Your task to perform on an android device: turn off translation in the chrome app Image 0: 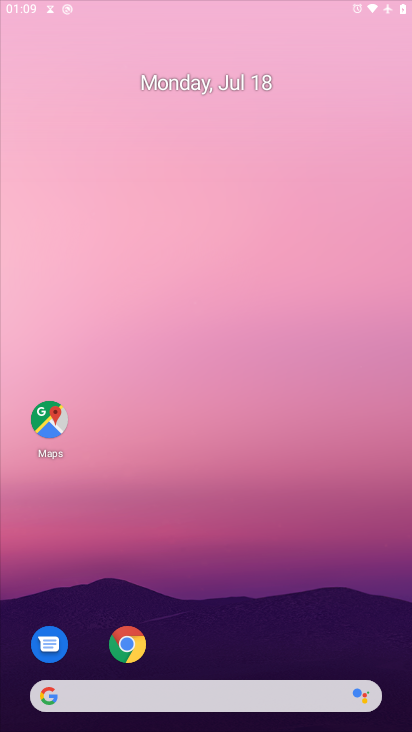
Step 0: press home button
Your task to perform on an android device: turn off translation in the chrome app Image 1: 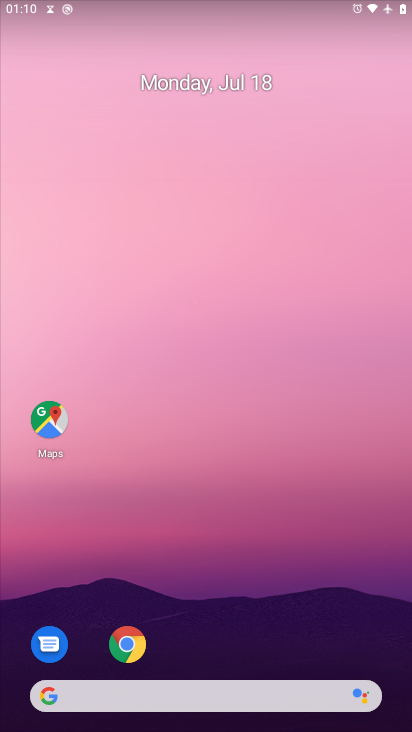
Step 1: drag from (241, 586) to (209, 1)
Your task to perform on an android device: turn off translation in the chrome app Image 2: 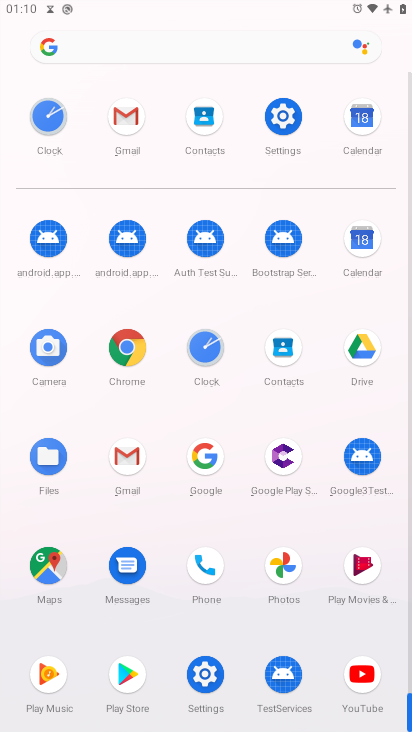
Step 2: click (122, 355)
Your task to perform on an android device: turn off translation in the chrome app Image 3: 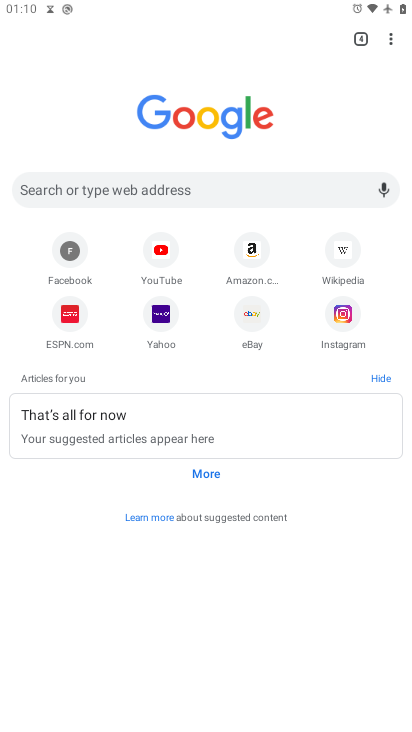
Step 3: drag from (399, 43) to (273, 330)
Your task to perform on an android device: turn off translation in the chrome app Image 4: 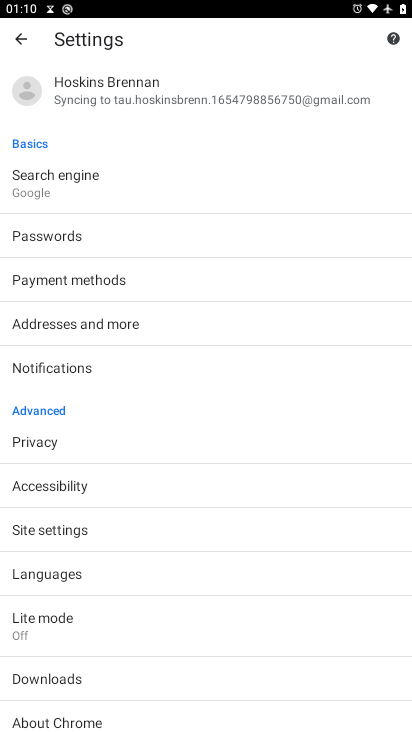
Step 4: click (43, 578)
Your task to perform on an android device: turn off translation in the chrome app Image 5: 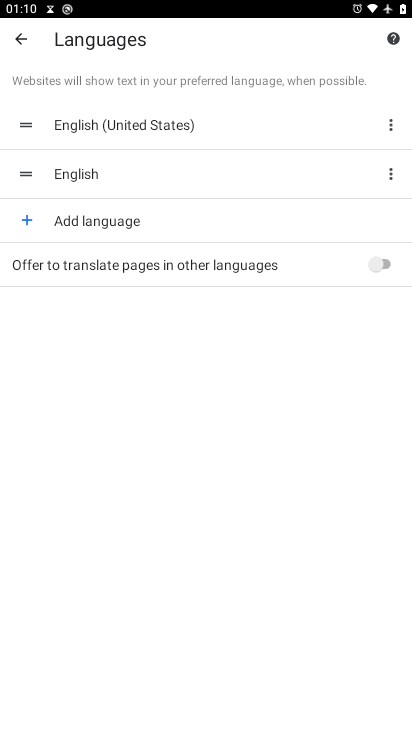
Step 5: task complete